Your task to perform on an android device: Check the news Image 0: 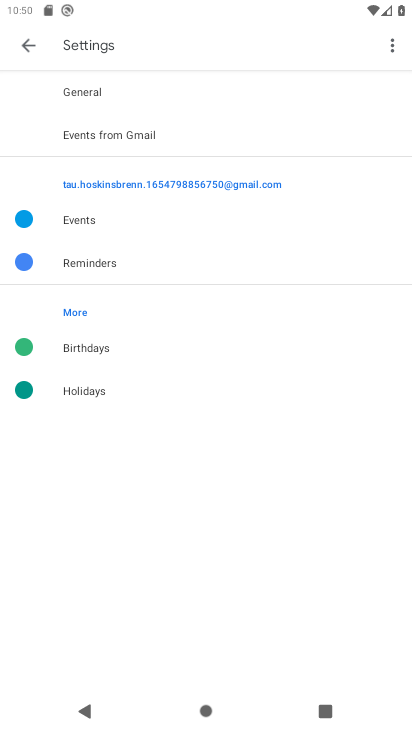
Step 0: press home button
Your task to perform on an android device: Check the news Image 1: 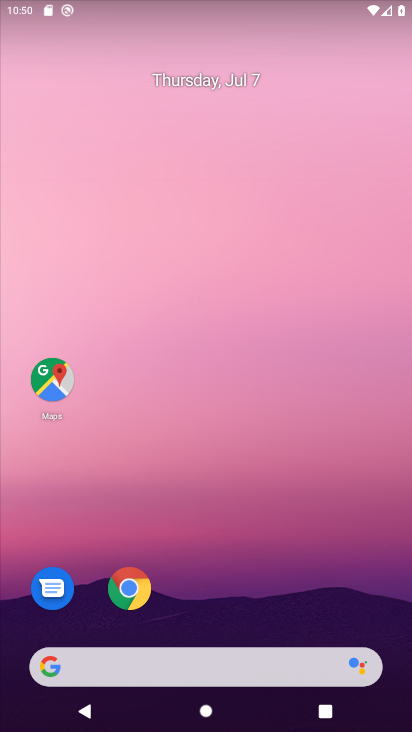
Step 1: click (223, 677)
Your task to perform on an android device: Check the news Image 2: 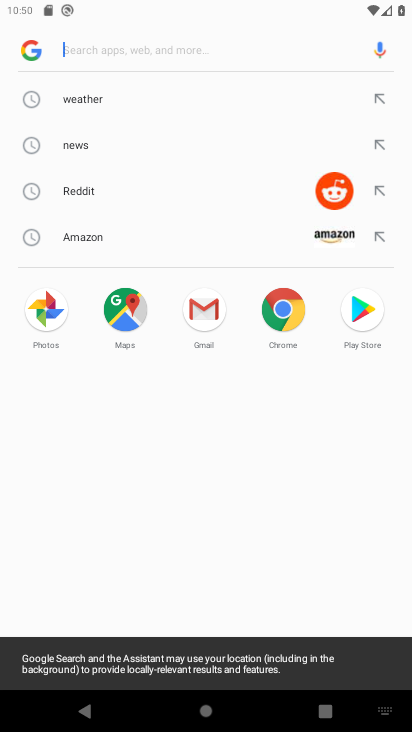
Step 2: click (84, 143)
Your task to perform on an android device: Check the news Image 3: 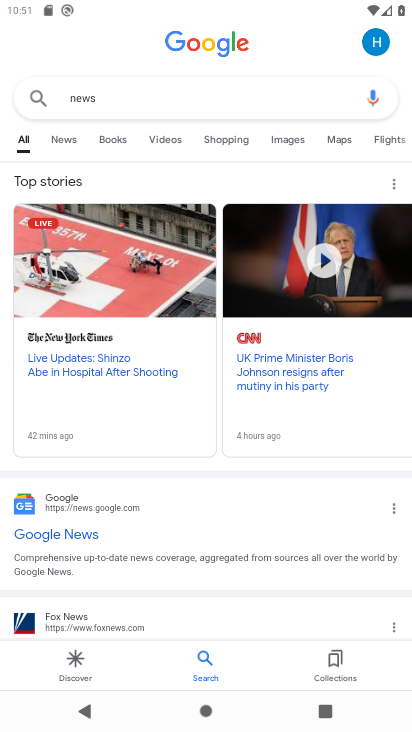
Step 3: task complete